Your task to perform on an android device: make emails show in primary in the gmail app Image 0: 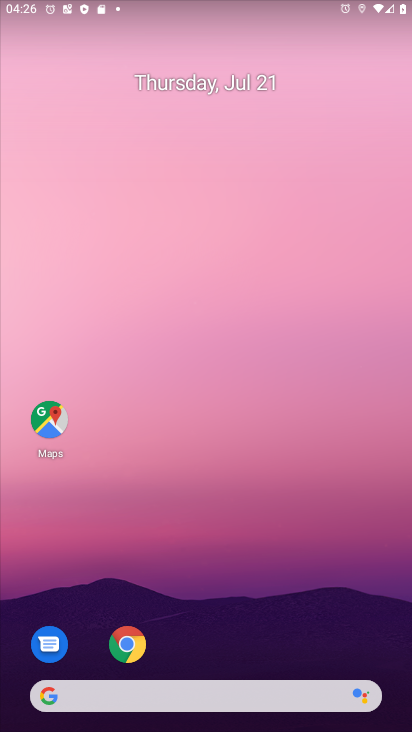
Step 0: drag from (263, 635) to (279, 35)
Your task to perform on an android device: make emails show in primary in the gmail app Image 1: 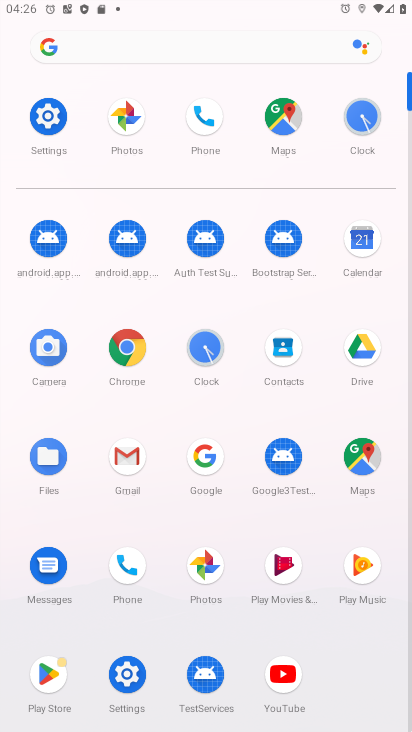
Step 1: click (129, 461)
Your task to perform on an android device: make emails show in primary in the gmail app Image 2: 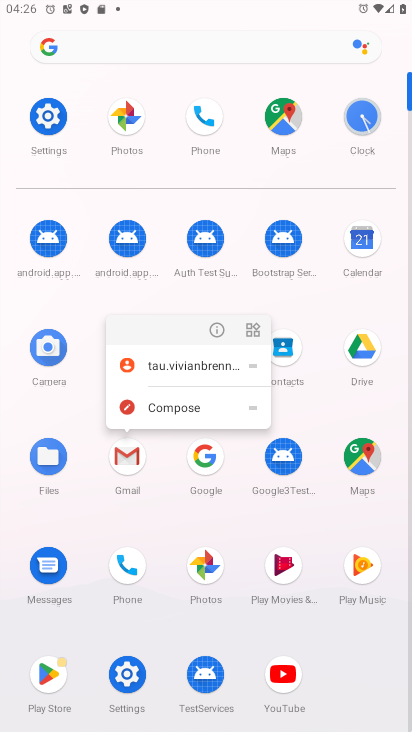
Step 2: click (126, 456)
Your task to perform on an android device: make emails show in primary in the gmail app Image 3: 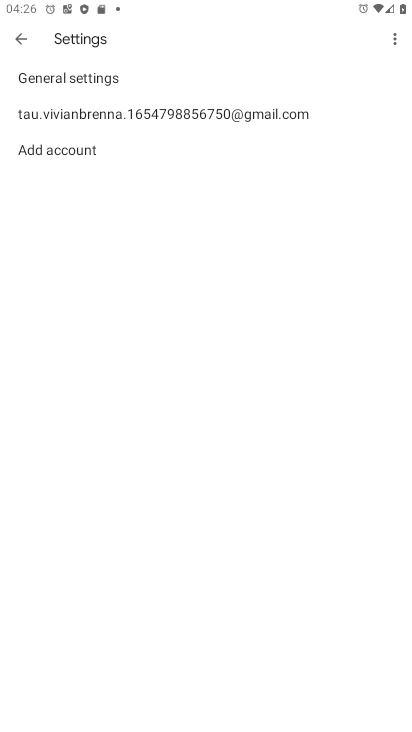
Step 3: click (19, 37)
Your task to perform on an android device: make emails show in primary in the gmail app Image 4: 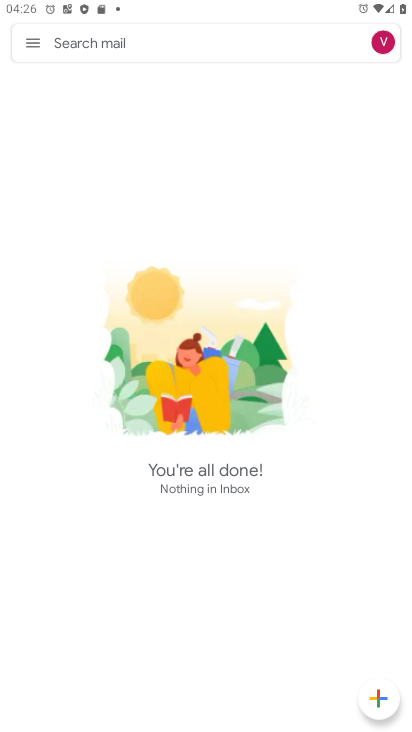
Step 4: click (28, 39)
Your task to perform on an android device: make emails show in primary in the gmail app Image 5: 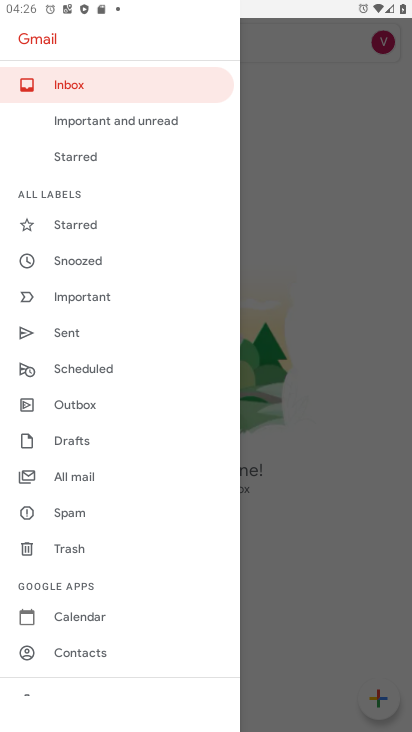
Step 5: drag from (99, 597) to (117, 270)
Your task to perform on an android device: make emails show in primary in the gmail app Image 6: 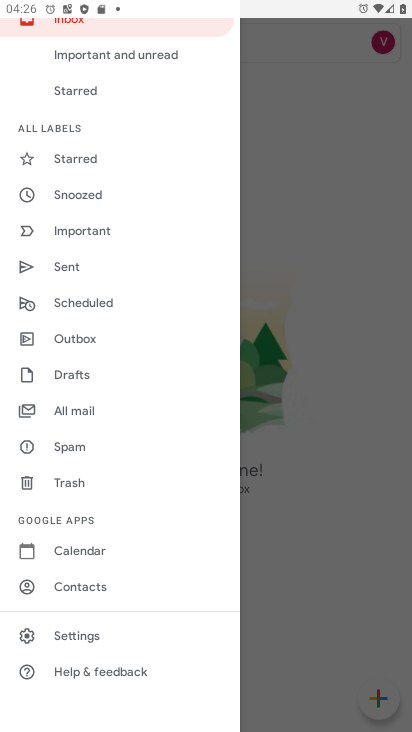
Step 6: click (72, 643)
Your task to perform on an android device: make emails show in primary in the gmail app Image 7: 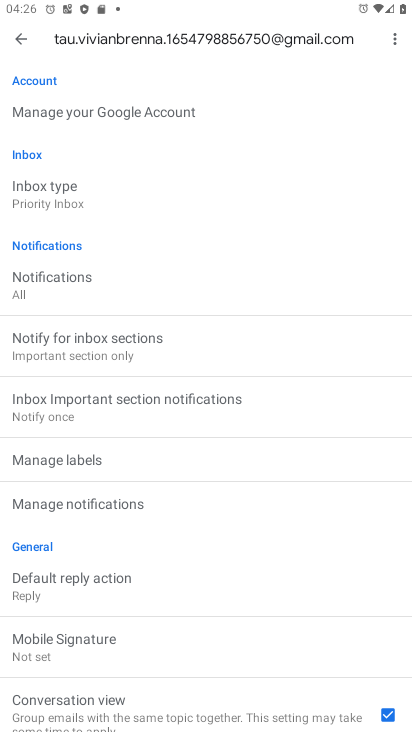
Step 7: task complete